Your task to perform on an android device: Open network settings Image 0: 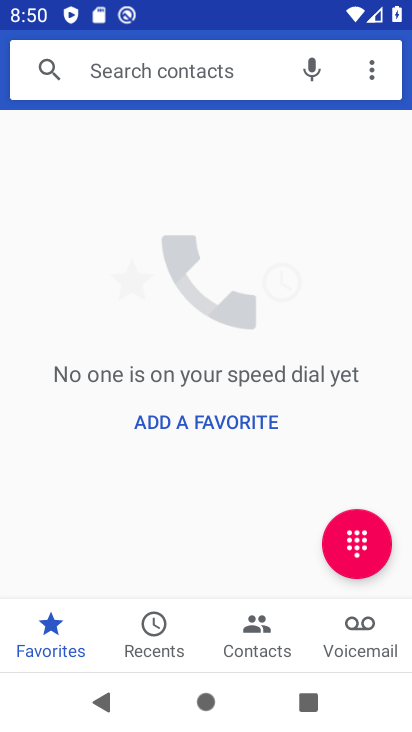
Step 0: press home button
Your task to perform on an android device: Open network settings Image 1: 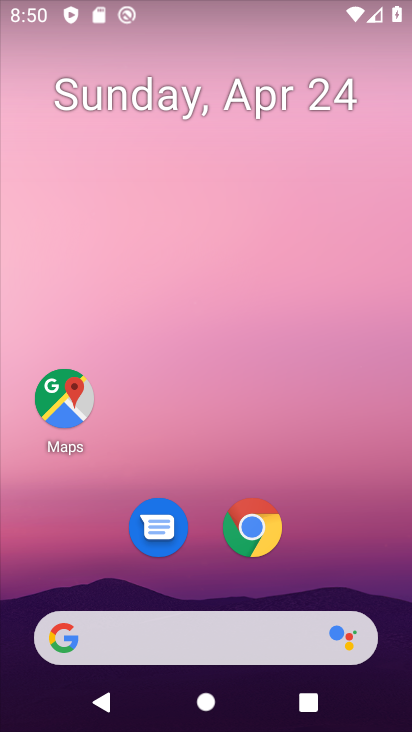
Step 1: drag from (344, 529) to (255, 28)
Your task to perform on an android device: Open network settings Image 2: 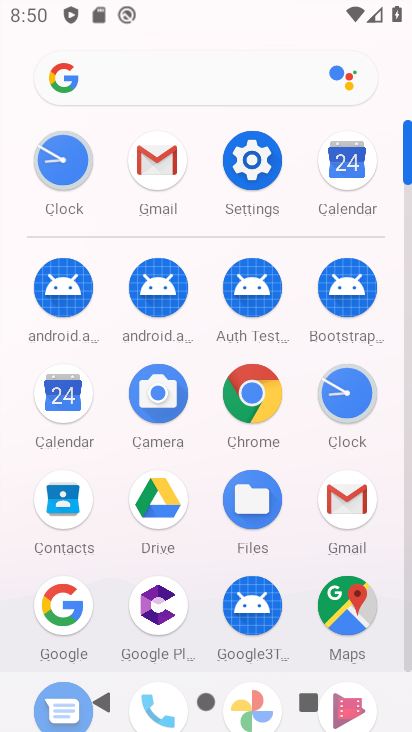
Step 2: click (244, 159)
Your task to perform on an android device: Open network settings Image 3: 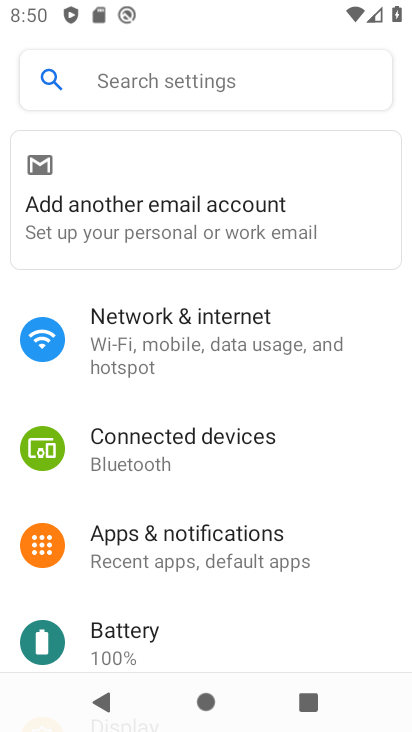
Step 3: click (227, 341)
Your task to perform on an android device: Open network settings Image 4: 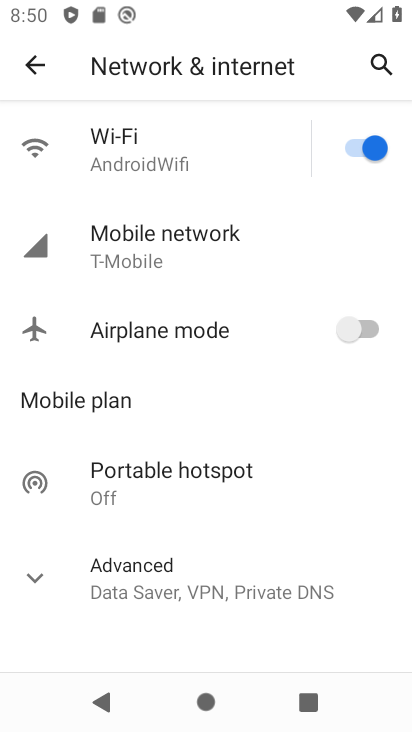
Step 4: task complete